Your task to perform on an android device: add a contact Image 0: 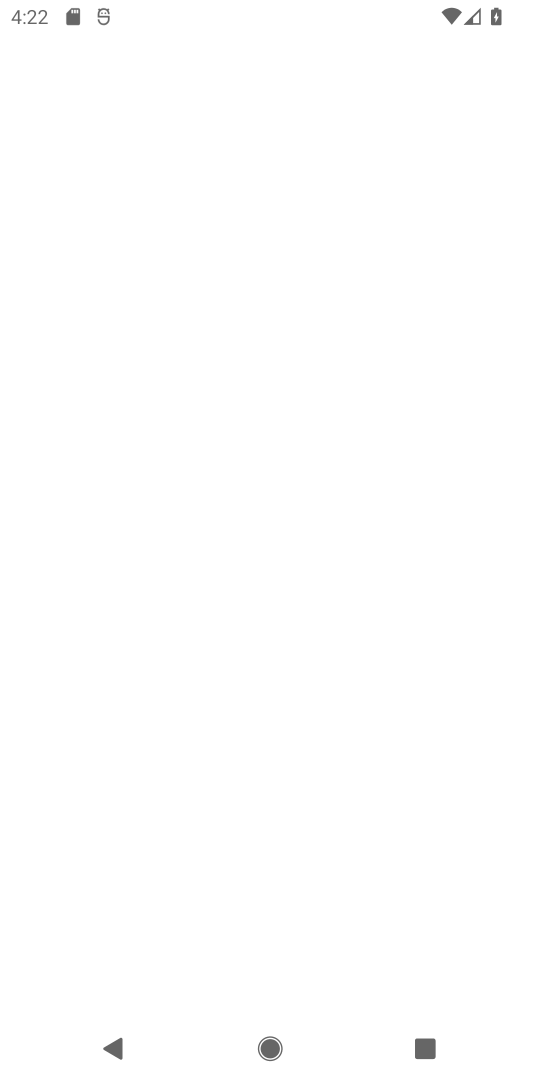
Step 0: press home button
Your task to perform on an android device: add a contact Image 1: 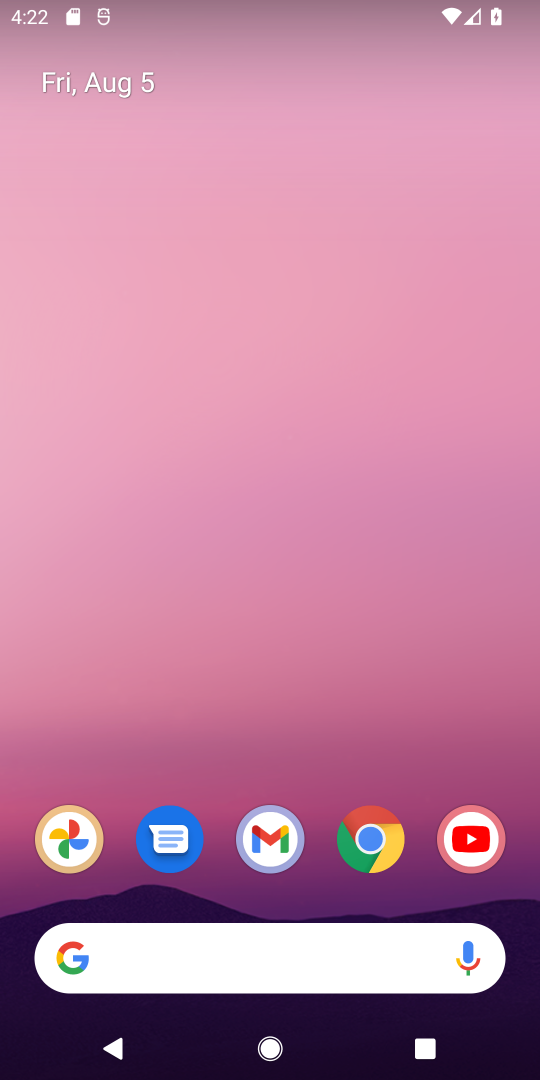
Step 1: drag from (272, 650) to (352, 136)
Your task to perform on an android device: add a contact Image 2: 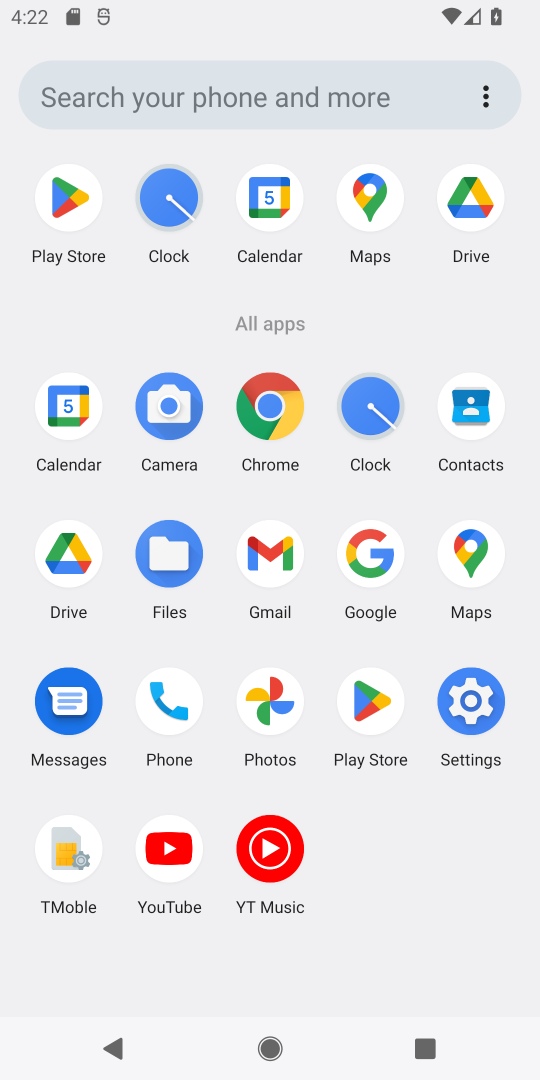
Step 2: click (463, 403)
Your task to perform on an android device: add a contact Image 3: 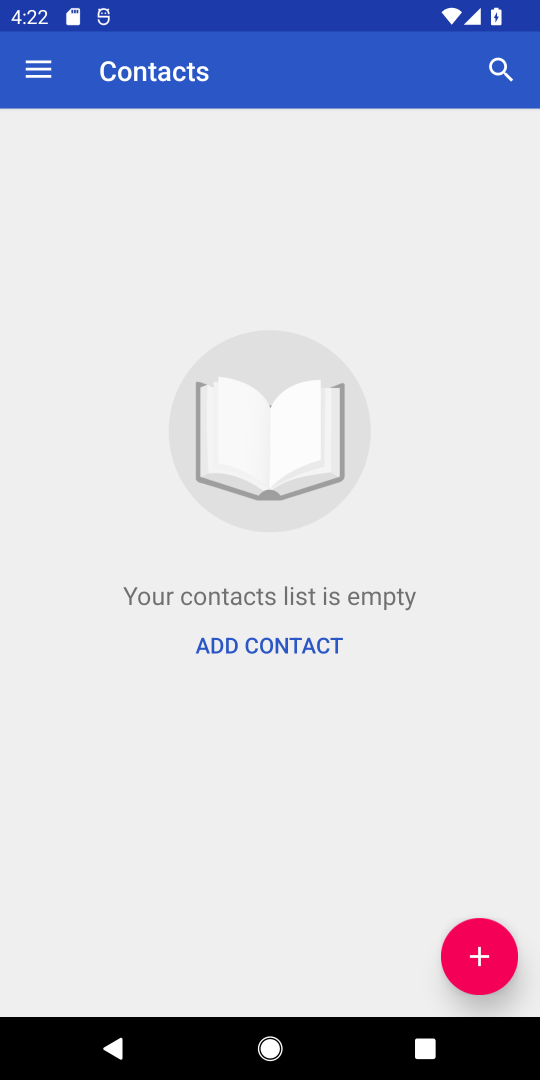
Step 3: click (492, 951)
Your task to perform on an android device: add a contact Image 4: 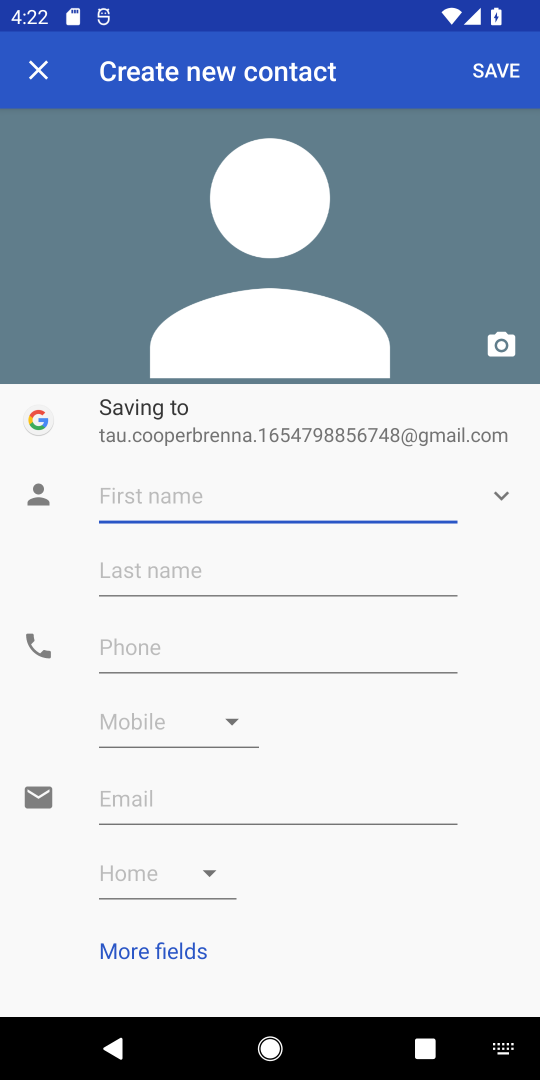
Step 4: click (123, 504)
Your task to perform on an android device: add a contact Image 5: 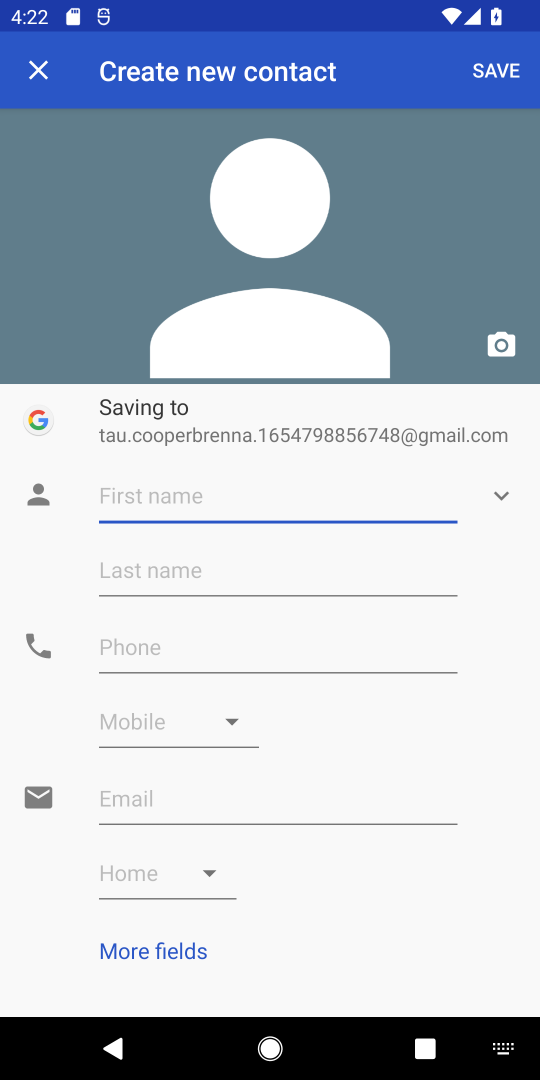
Step 5: type "gnffbfb"
Your task to perform on an android device: add a contact Image 6: 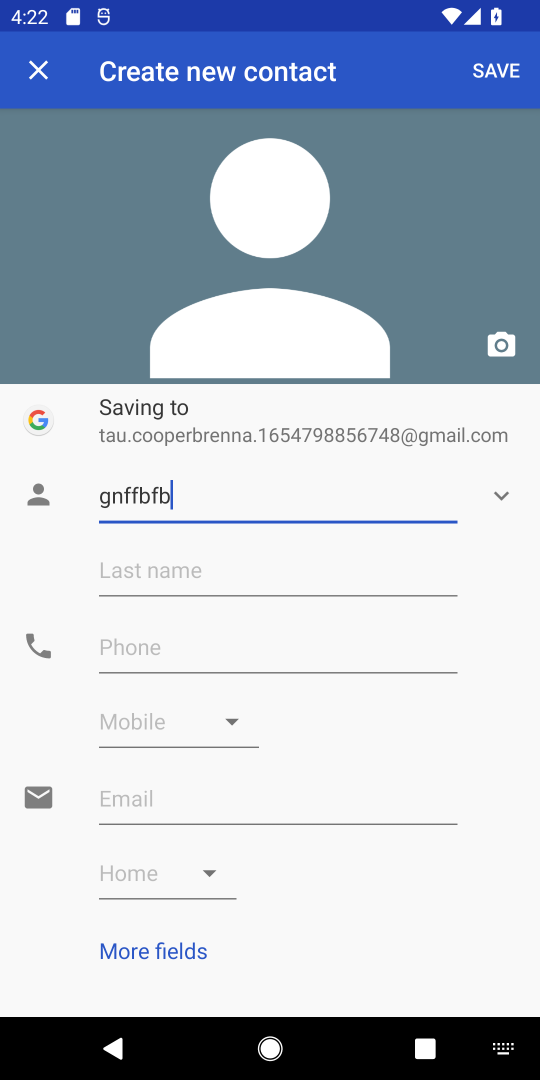
Step 6: type ""
Your task to perform on an android device: add a contact Image 7: 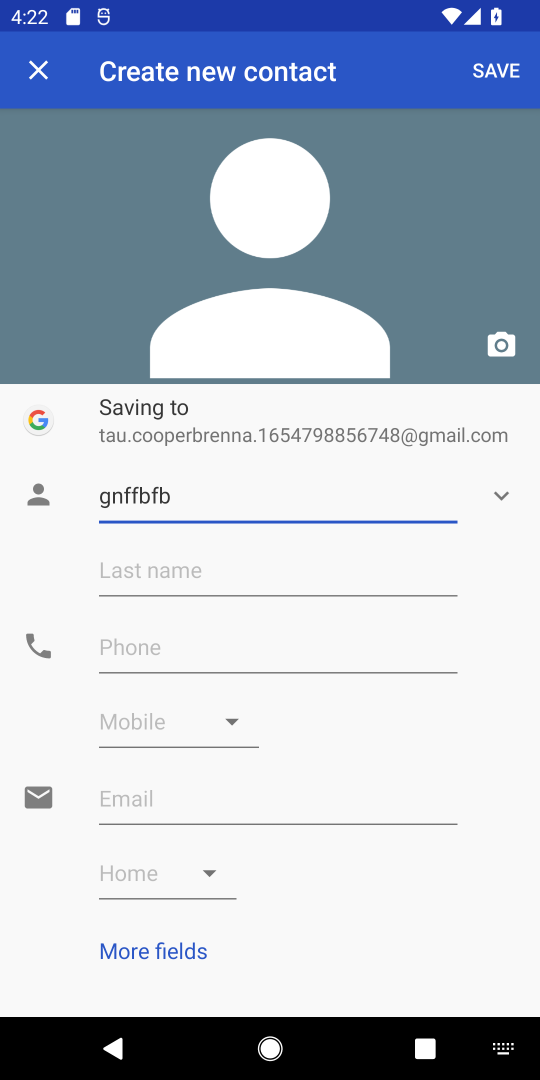
Step 7: click (196, 649)
Your task to perform on an android device: add a contact Image 8: 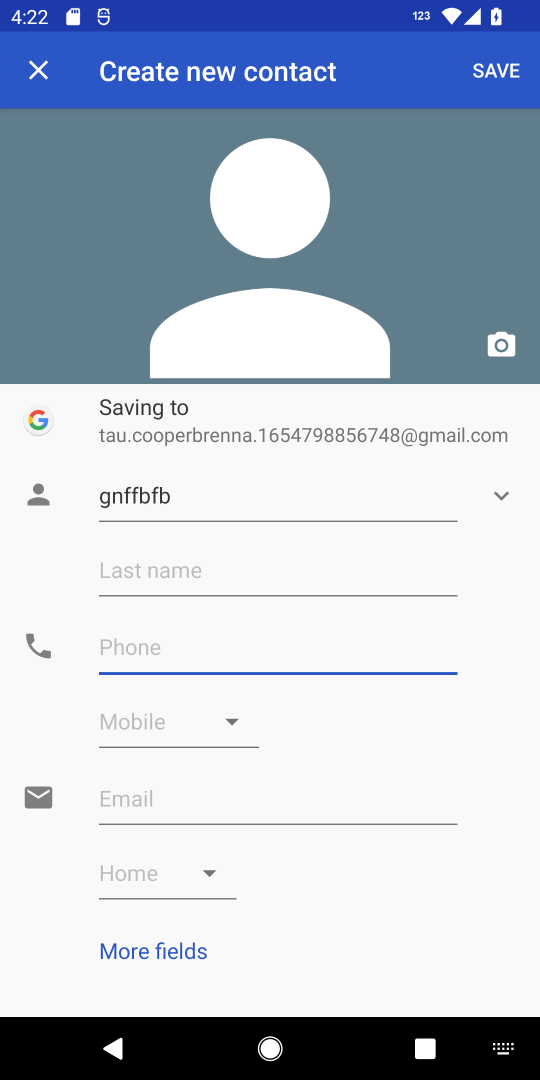
Step 8: type "86454353"
Your task to perform on an android device: add a contact Image 9: 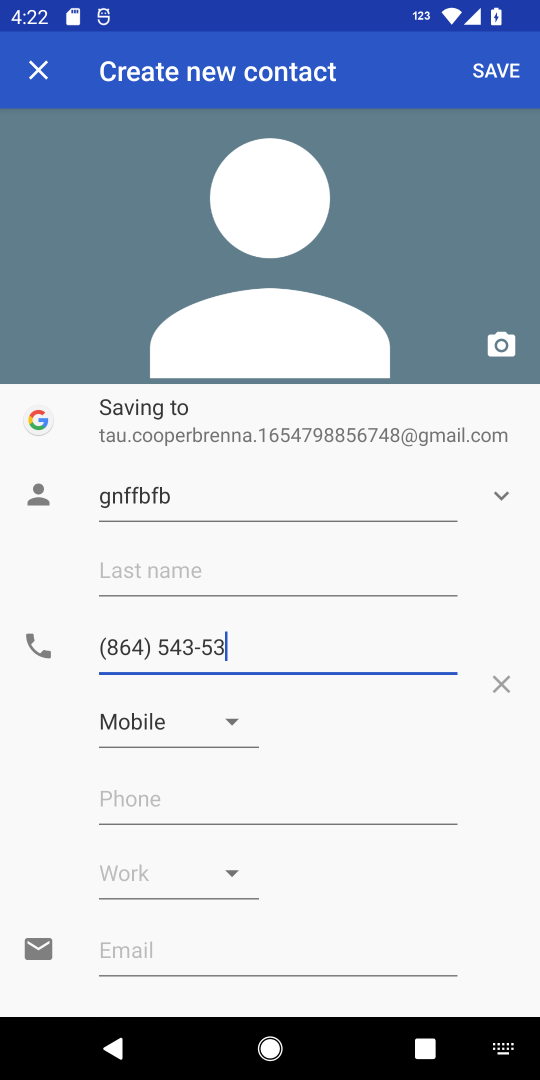
Step 9: click (496, 49)
Your task to perform on an android device: add a contact Image 10: 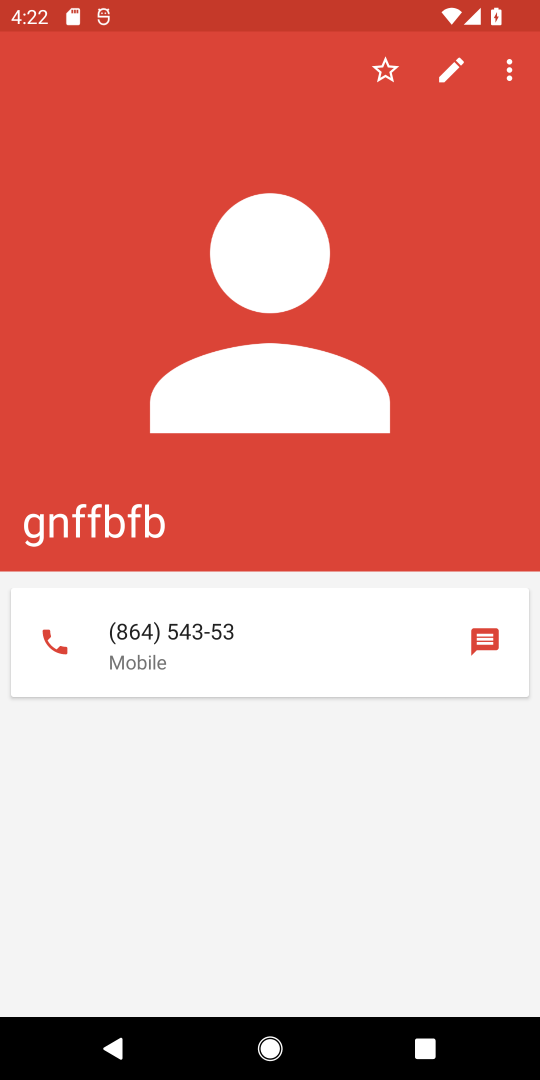
Step 10: task complete